Your task to perform on an android device: Open Google Image 0: 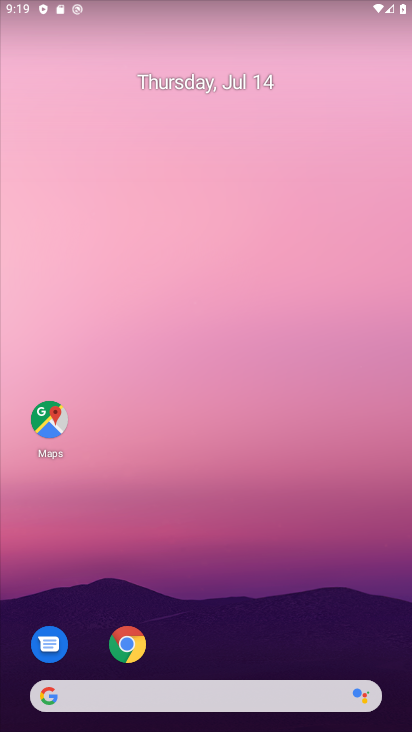
Step 0: drag from (231, 681) to (236, 280)
Your task to perform on an android device: Open Google Image 1: 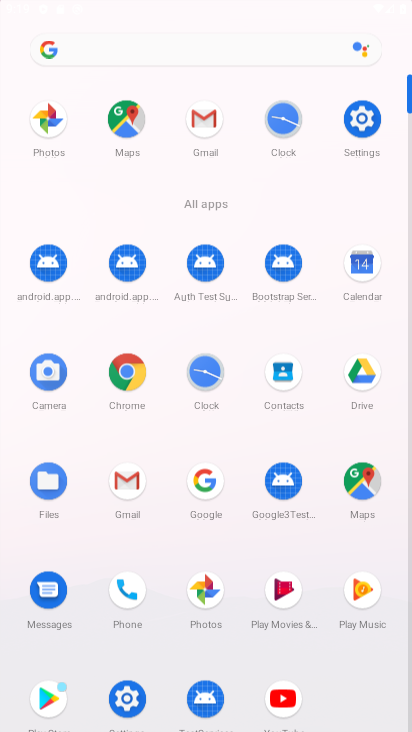
Step 1: drag from (277, 685) to (302, 291)
Your task to perform on an android device: Open Google Image 2: 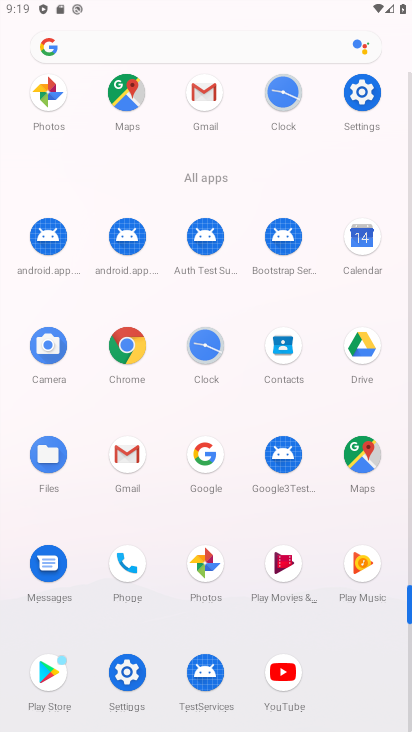
Step 2: click (185, 456)
Your task to perform on an android device: Open Google Image 3: 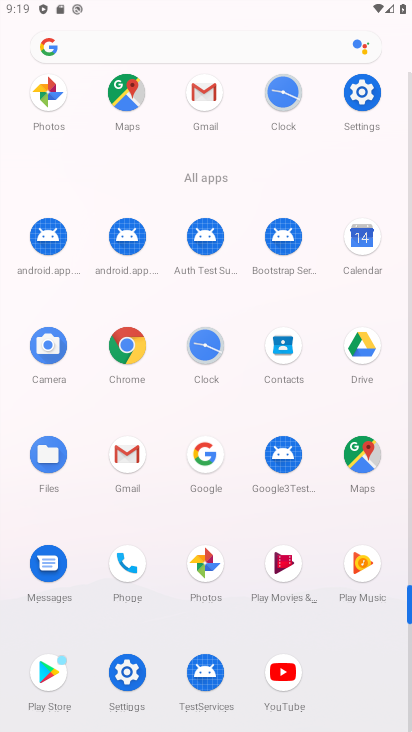
Step 3: click (209, 459)
Your task to perform on an android device: Open Google Image 4: 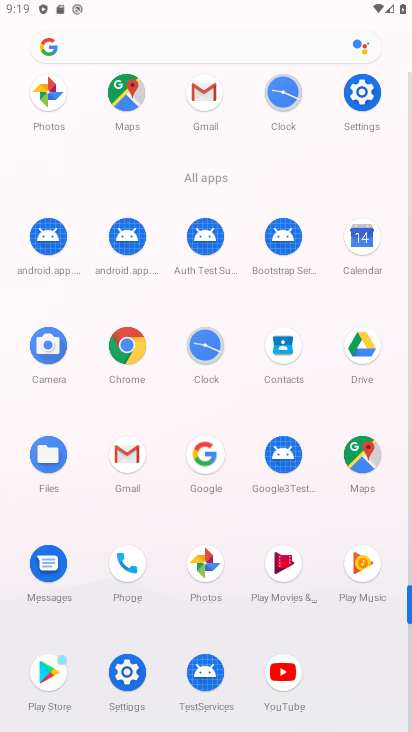
Step 4: click (214, 459)
Your task to perform on an android device: Open Google Image 5: 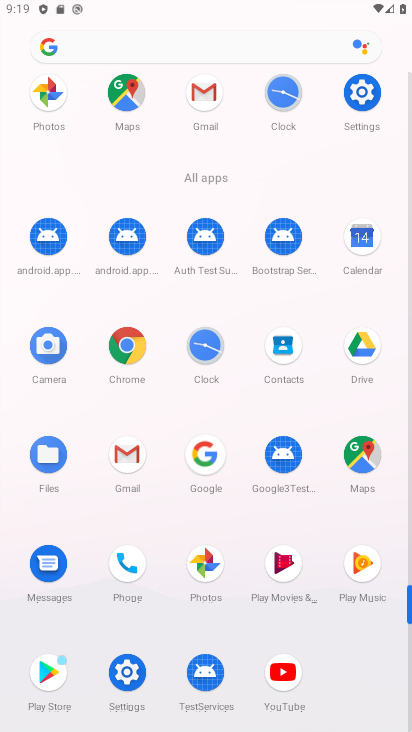
Step 5: click (205, 460)
Your task to perform on an android device: Open Google Image 6: 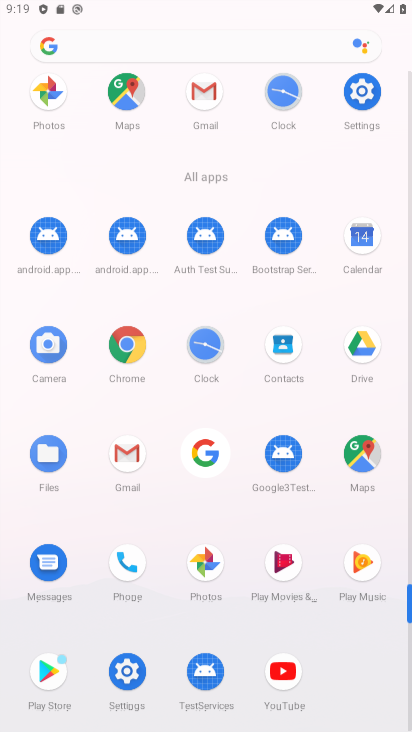
Step 6: click (205, 460)
Your task to perform on an android device: Open Google Image 7: 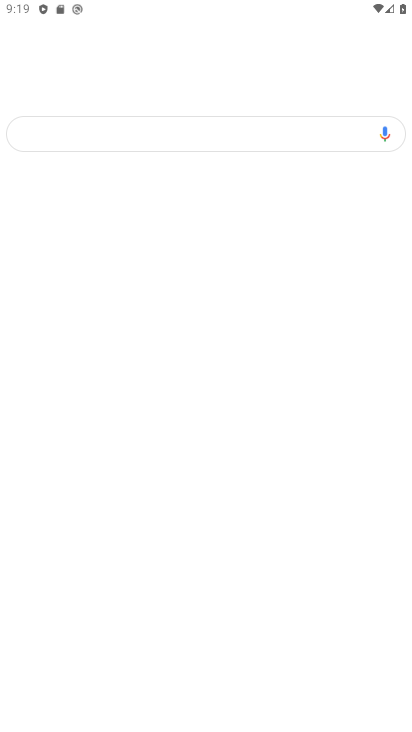
Step 7: click (200, 463)
Your task to perform on an android device: Open Google Image 8: 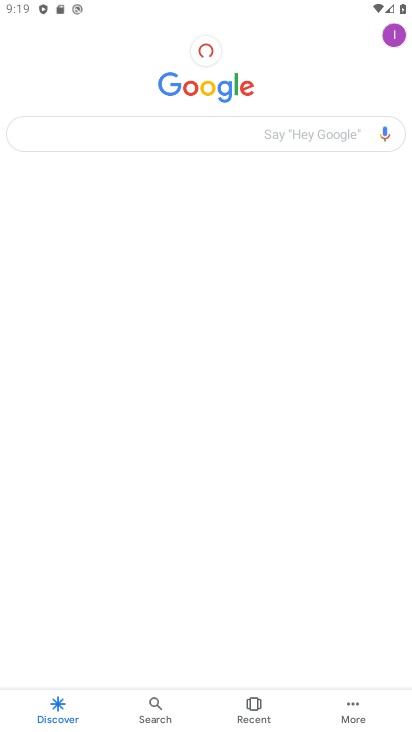
Step 8: task complete